Your task to perform on an android device: open a bookmark in the chrome app Image 0: 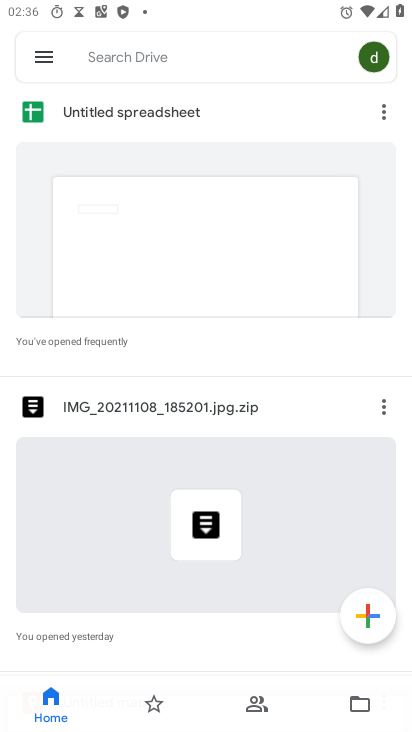
Step 0: press home button
Your task to perform on an android device: open a bookmark in the chrome app Image 1: 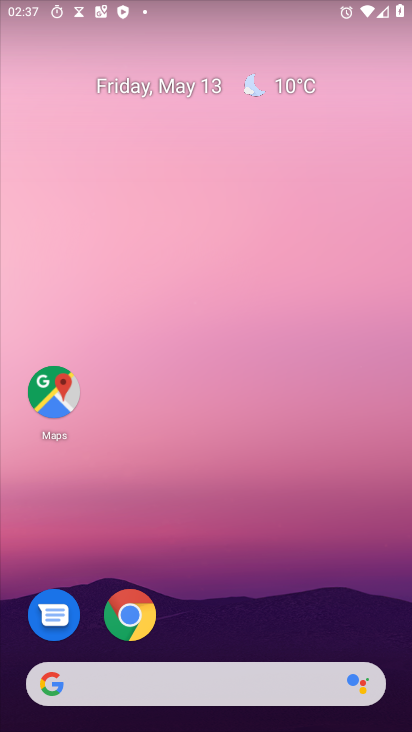
Step 1: click (135, 613)
Your task to perform on an android device: open a bookmark in the chrome app Image 2: 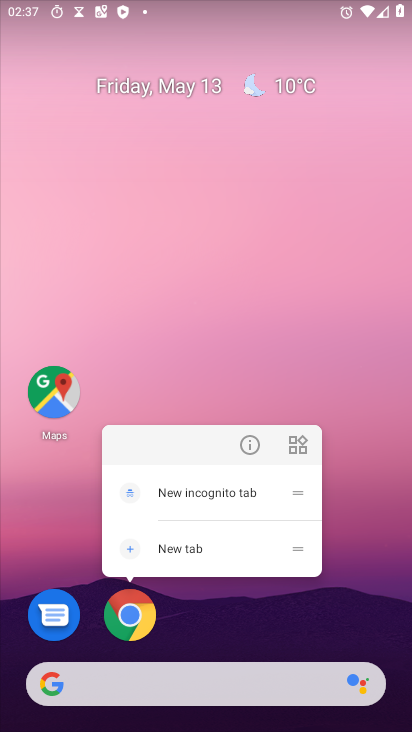
Step 2: click (135, 613)
Your task to perform on an android device: open a bookmark in the chrome app Image 3: 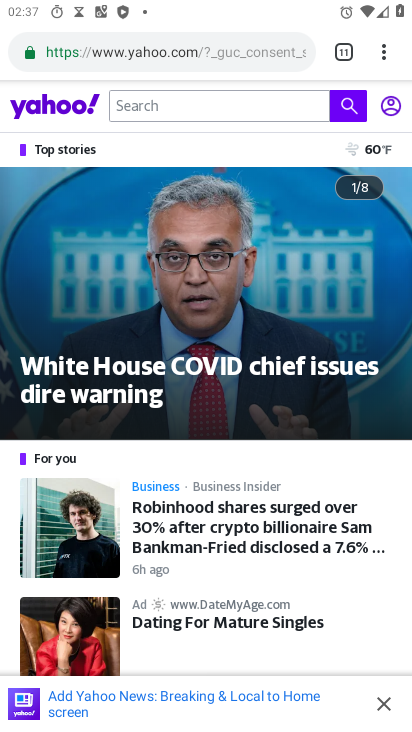
Step 3: click (381, 50)
Your task to perform on an android device: open a bookmark in the chrome app Image 4: 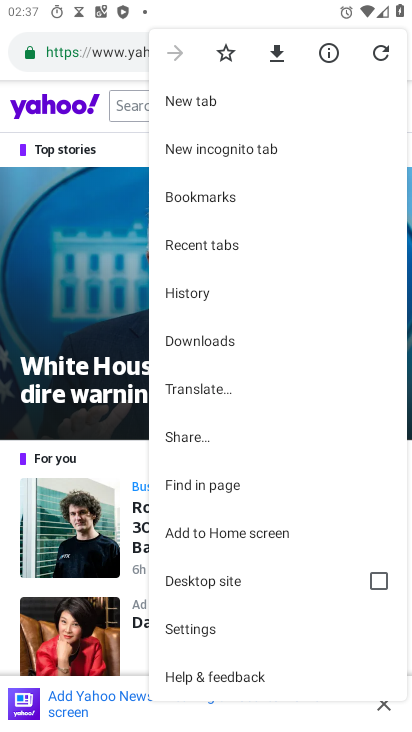
Step 4: click (191, 197)
Your task to perform on an android device: open a bookmark in the chrome app Image 5: 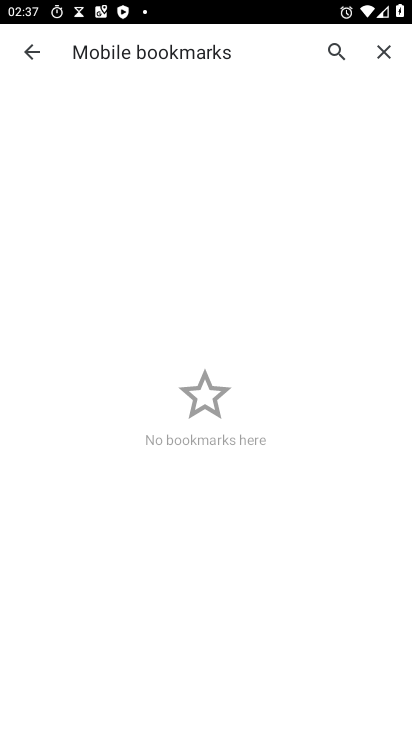
Step 5: task complete